Your task to perform on an android device: delete location history Image 0: 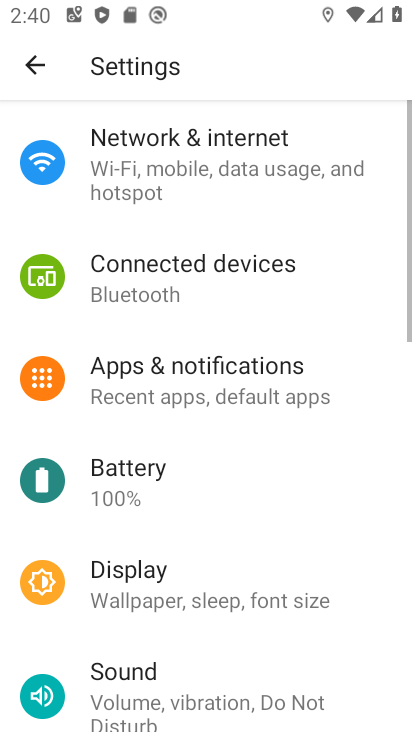
Step 0: drag from (228, 608) to (302, 278)
Your task to perform on an android device: delete location history Image 1: 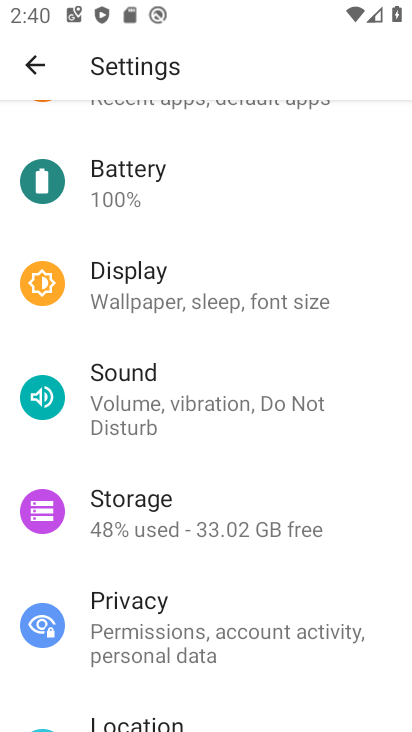
Step 1: drag from (206, 634) to (238, 195)
Your task to perform on an android device: delete location history Image 2: 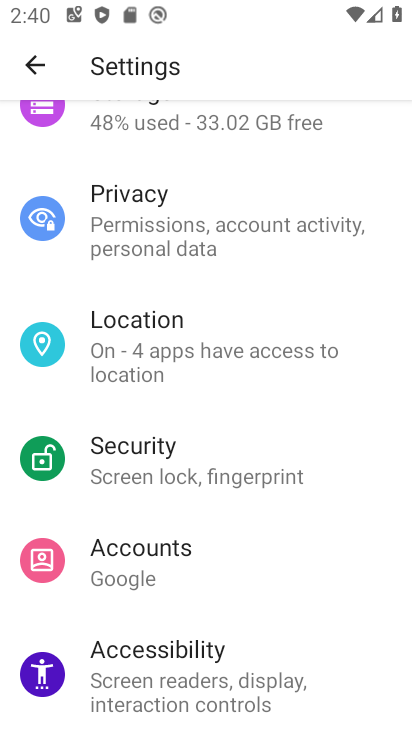
Step 2: click (188, 349)
Your task to perform on an android device: delete location history Image 3: 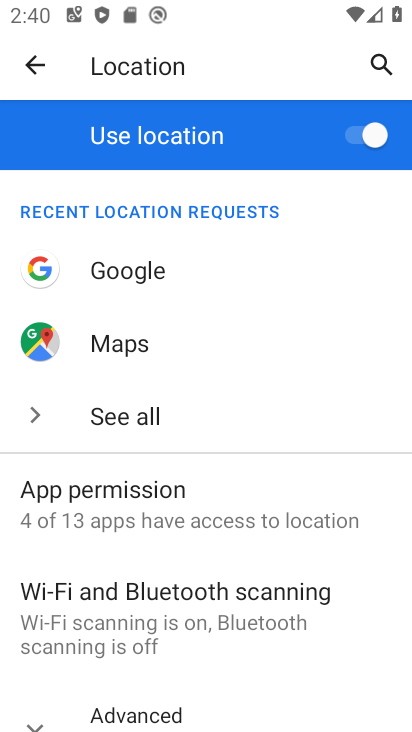
Step 3: drag from (204, 662) to (246, 275)
Your task to perform on an android device: delete location history Image 4: 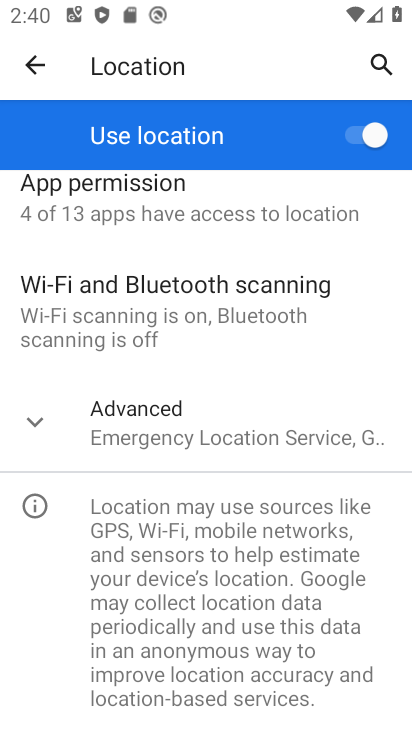
Step 4: click (155, 434)
Your task to perform on an android device: delete location history Image 5: 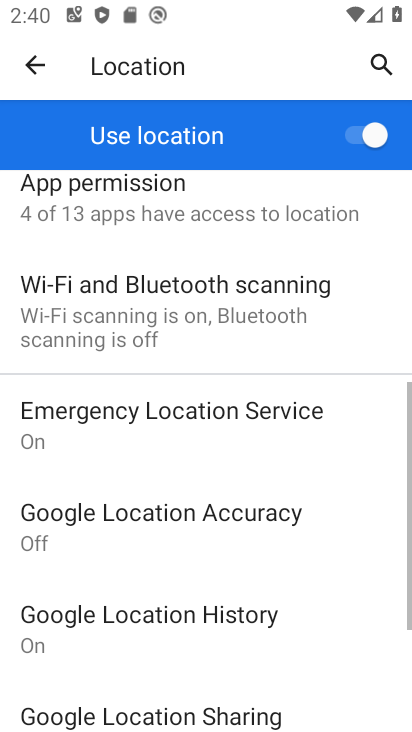
Step 5: drag from (254, 697) to (293, 373)
Your task to perform on an android device: delete location history Image 6: 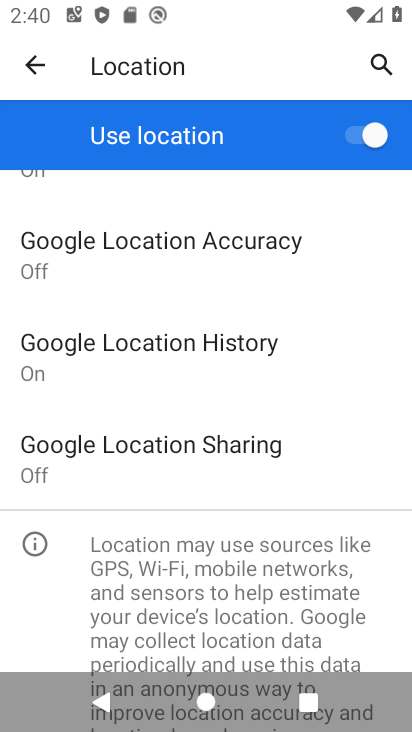
Step 6: click (225, 357)
Your task to perform on an android device: delete location history Image 7: 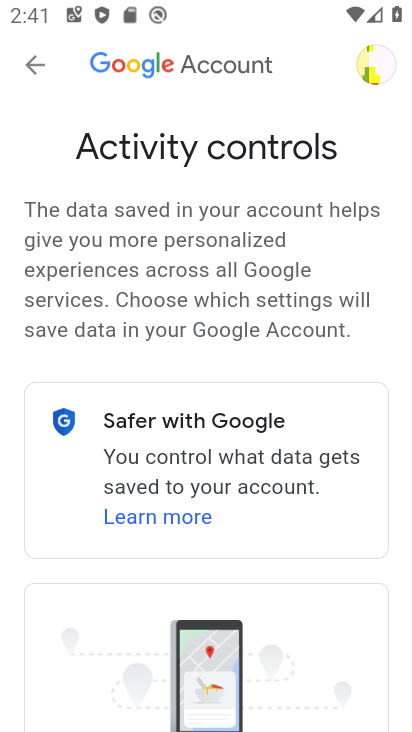
Step 7: drag from (209, 541) to (266, 47)
Your task to perform on an android device: delete location history Image 8: 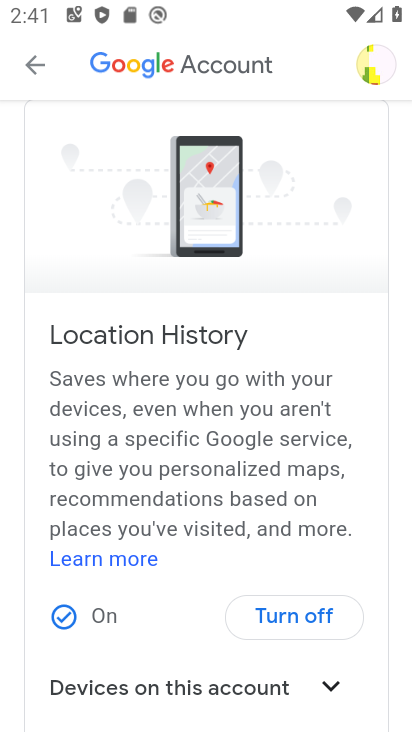
Step 8: drag from (231, 614) to (233, 288)
Your task to perform on an android device: delete location history Image 9: 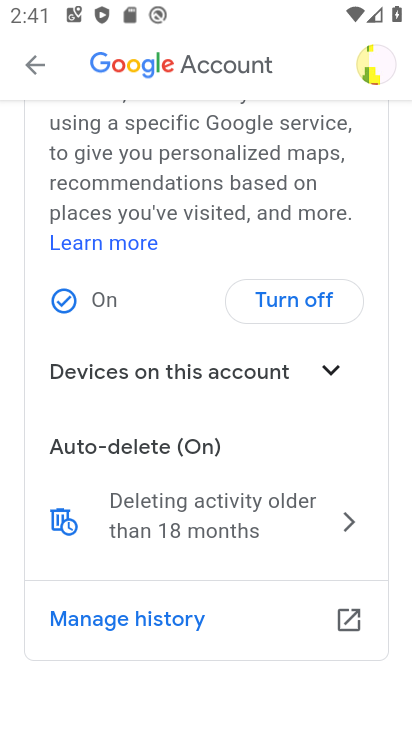
Step 9: click (61, 510)
Your task to perform on an android device: delete location history Image 10: 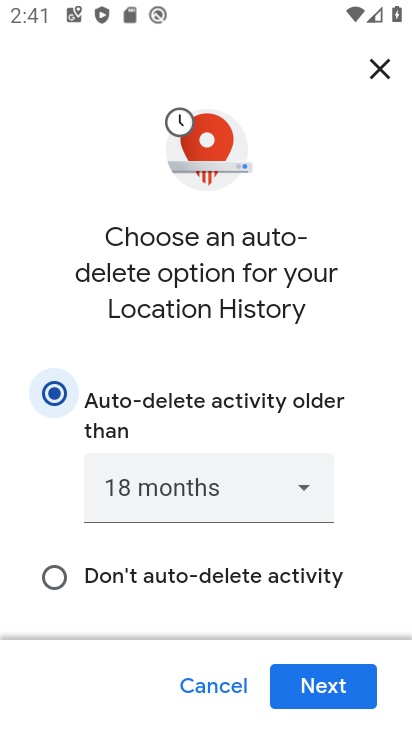
Step 10: click (331, 707)
Your task to perform on an android device: delete location history Image 11: 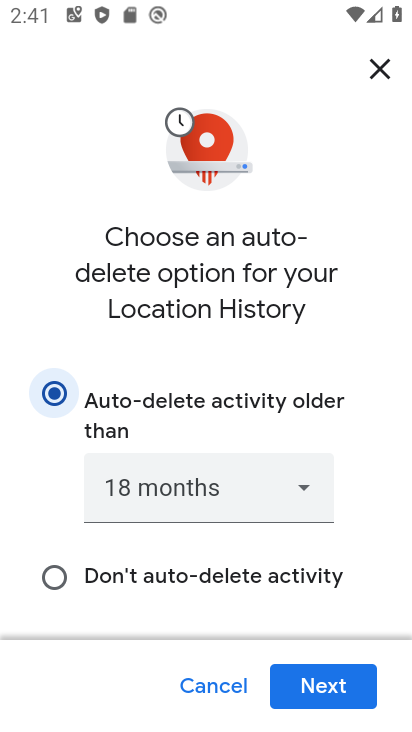
Step 11: click (331, 706)
Your task to perform on an android device: delete location history Image 12: 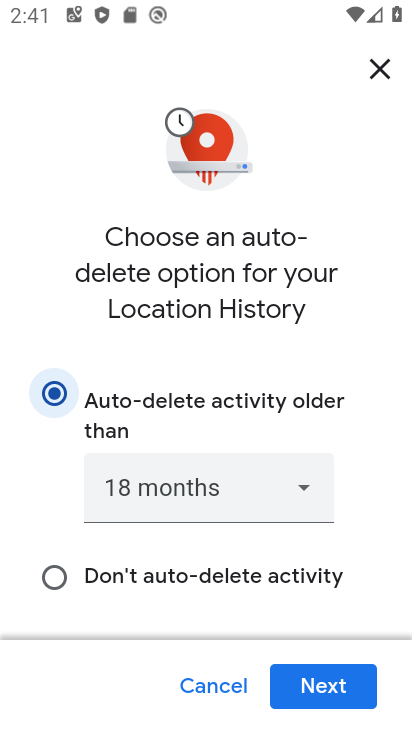
Step 12: click (331, 706)
Your task to perform on an android device: delete location history Image 13: 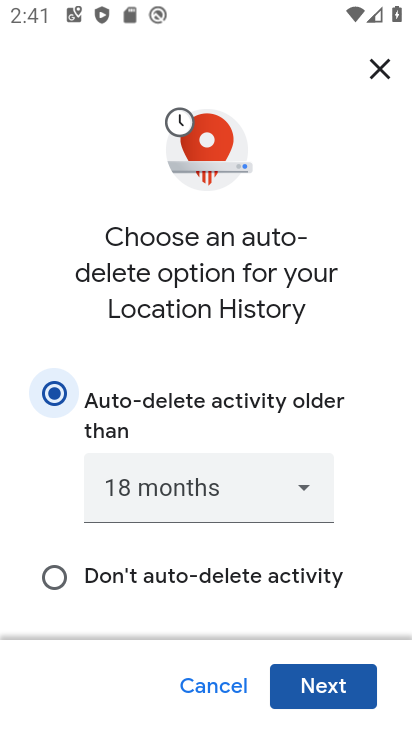
Step 13: click (332, 700)
Your task to perform on an android device: delete location history Image 14: 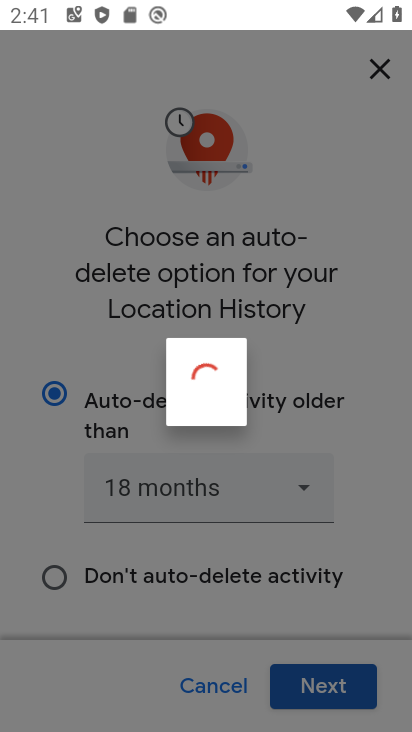
Step 14: click (331, 699)
Your task to perform on an android device: delete location history Image 15: 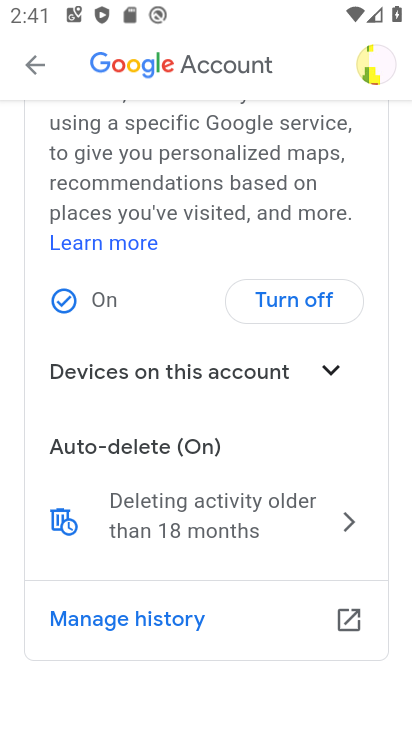
Step 15: task complete